Your task to perform on an android device: Search for pizza restaurants on Maps Image 0: 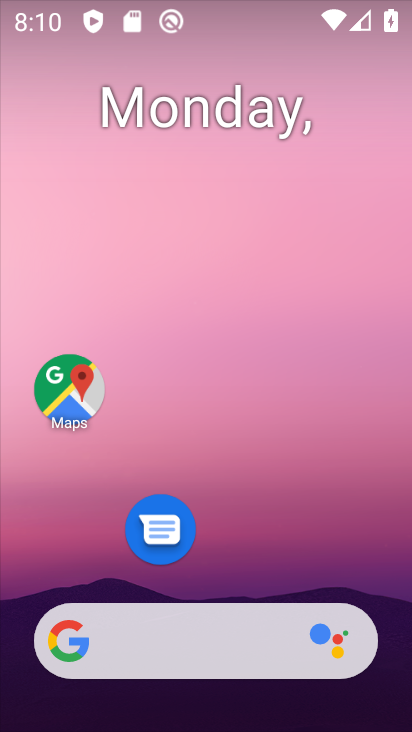
Step 0: click (78, 386)
Your task to perform on an android device: Search for pizza restaurants on Maps Image 1: 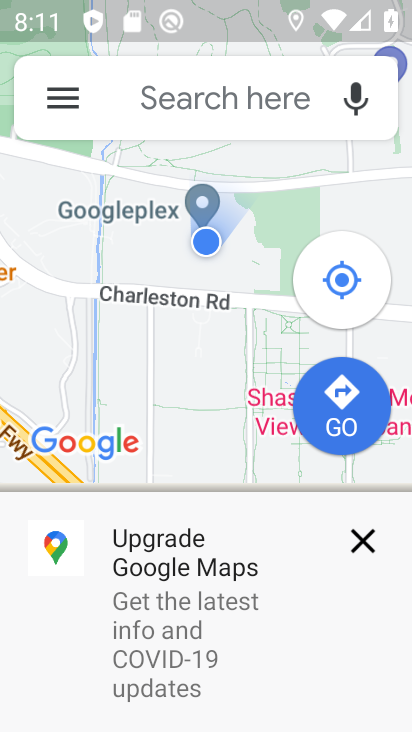
Step 1: click (232, 107)
Your task to perform on an android device: Search for pizza restaurants on Maps Image 2: 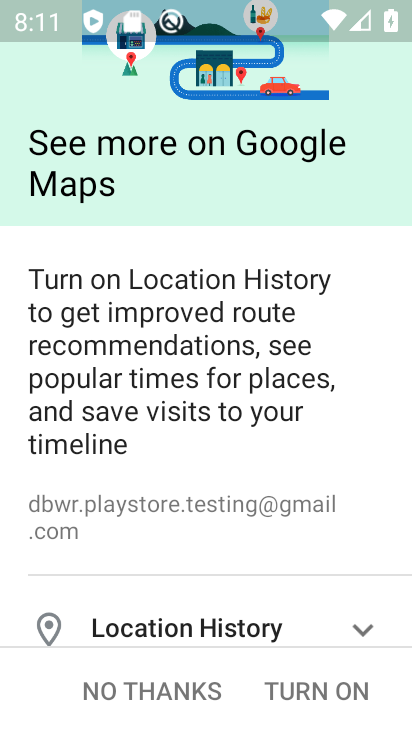
Step 2: click (313, 692)
Your task to perform on an android device: Search for pizza restaurants on Maps Image 3: 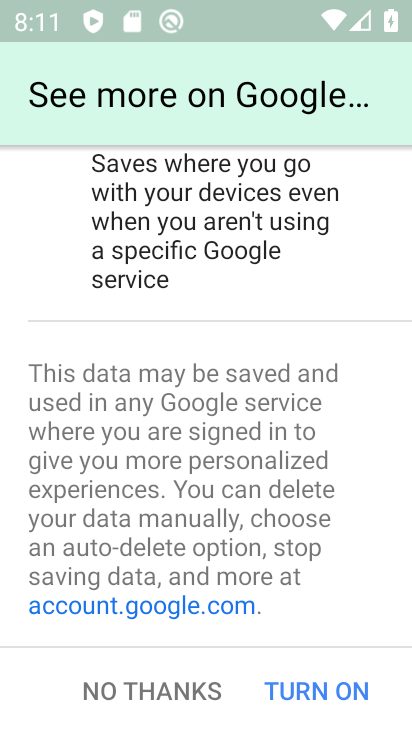
Step 3: click (313, 692)
Your task to perform on an android device: Search for pizza restaurants on Maps Image 4: 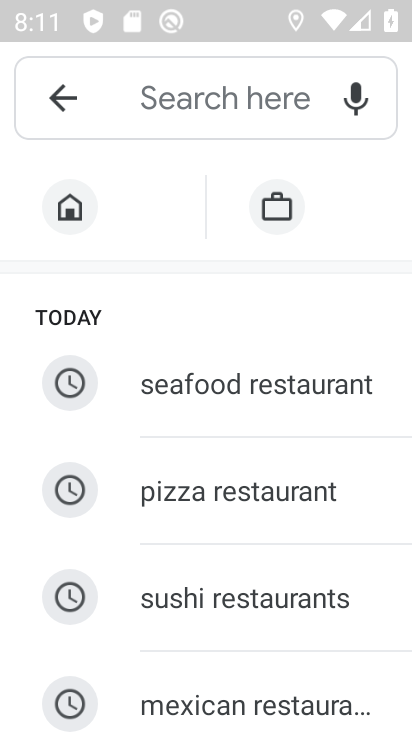
Step 4: click (267, 481)
Your task to perform on an android device: Search for pizza restaurants on Maps Image 5: 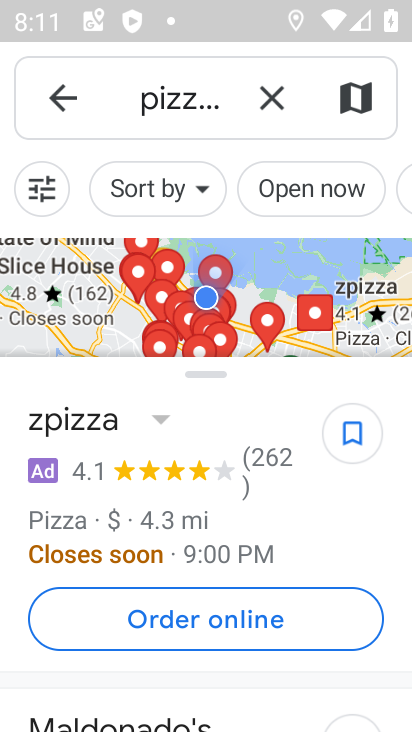
Step 5: task complete